Your task to perform on an android device: What is the news today? Image 0: 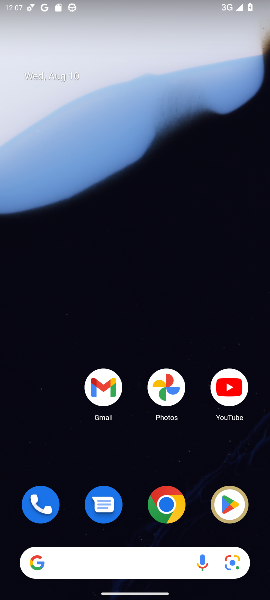
Step 0: press home button
Your task to perform on an android device: What is the news today? Image 1: 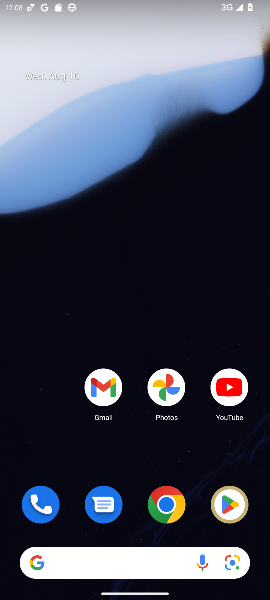
Step 1: drag from (132, 538) to (187, 147)
Your task to perform on an android device: What is the news today? Image 2: 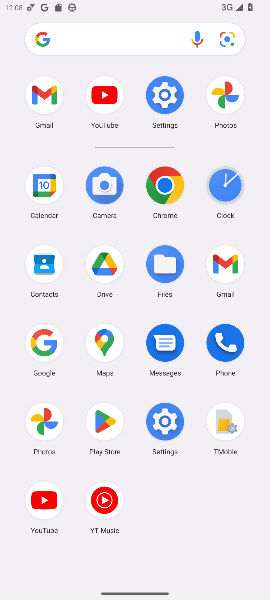
Step 2: click (48, 346)
Your task to perform on an android device: What is the news today? Image 3: 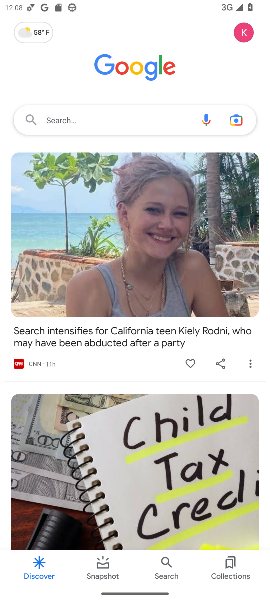
Step 3: type " news today?"
Your task to perform on an android device: What is the news today? Image 4: 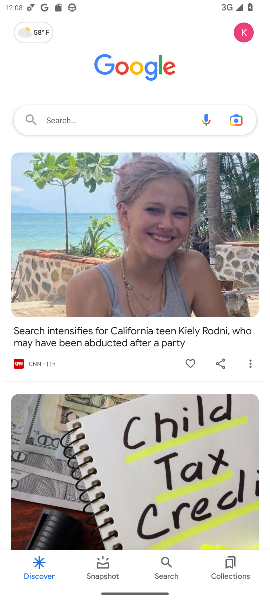
Step 4: click (127, 113)
Your task to perform on an android device: What is the news today? Image 5: 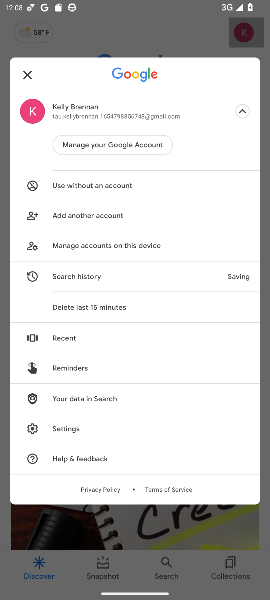
Step 5: click (24, 79)
Your task to perform on an android device: What is the news today? Image 6: 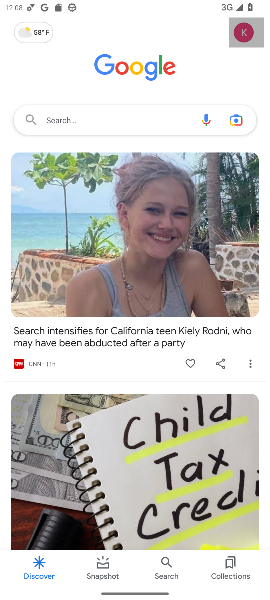
Step 6: click (79, 119)
Your task to perform on an android device: What is the news today? Image 7: 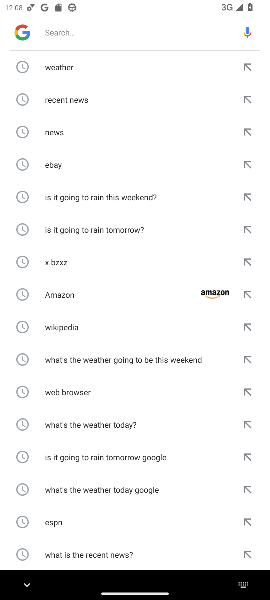
Step 7: type " news today?"
Your task to perform on an android device: What is the news today? Image 8: 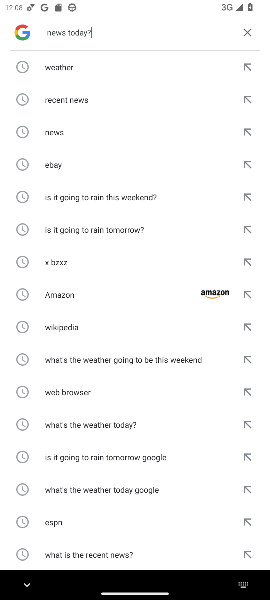
Step 8: press enter
Your task to perform on an android device: What is the news today? Image 9: 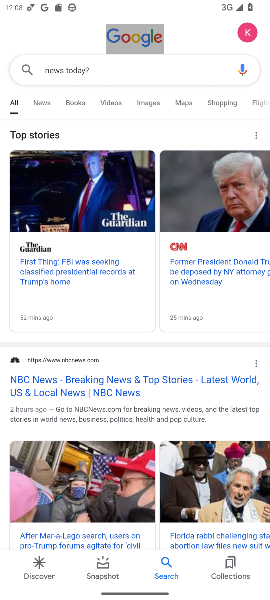
Step 9: task complete